Your task to perform on an android device: open app "PlayWell" (install if not already installed) and enter user name: "metric@gmail.com" and password: "bumblebee" Image 0: 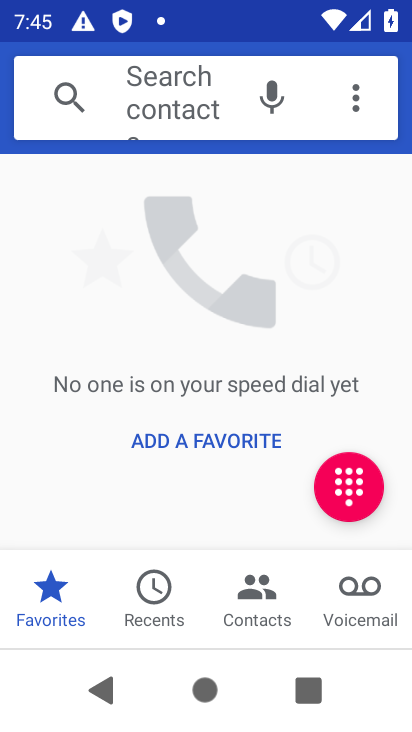
Step 0: press home button
Your task to perform on an android device: open app "PlayWell" (install if not already installed) and enter user name: "metric@gmail.com" and password: "bumblebee" Image 1: 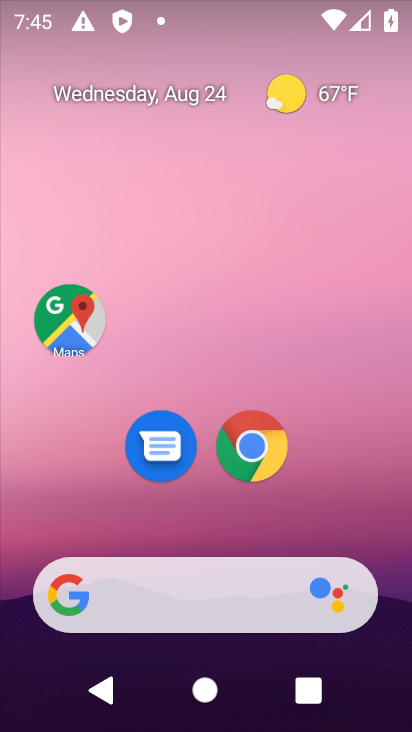
Step 1: drag from (200, 517) to (120, 48)
Your task to perform on an android device: open app "PlayWell" (install if not already installed) and enter user name: "metric@gmail.com" and password: "bumblebee" Image 2: 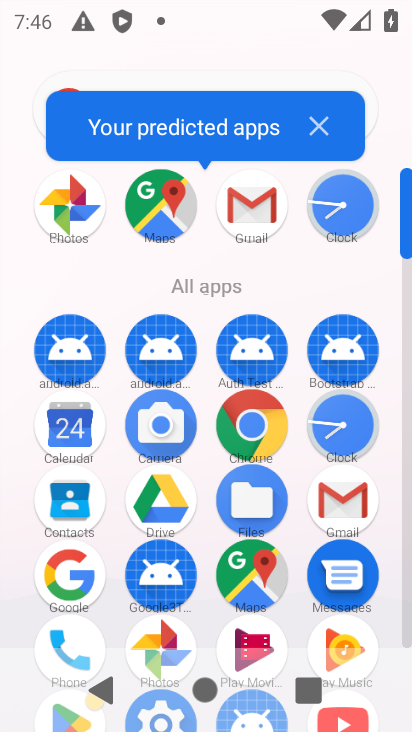
Step 2: drag from (200, 529) to (257, 4)
Your task to perform on an android device: open app "PlayWell" (install if not already installed) and enter user name: "metric@gmail.com" and password: "bumblebee" Image 3: 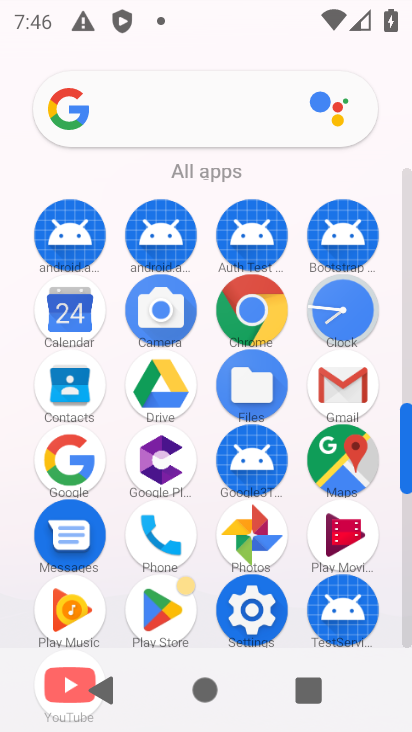
Step 3: click (161, 604)
Your task to perform on an android device: open app "PlayWell" (install if not already installed) and enter user name: "metric@gmail.com" and password: "bumblebee" Image 4: 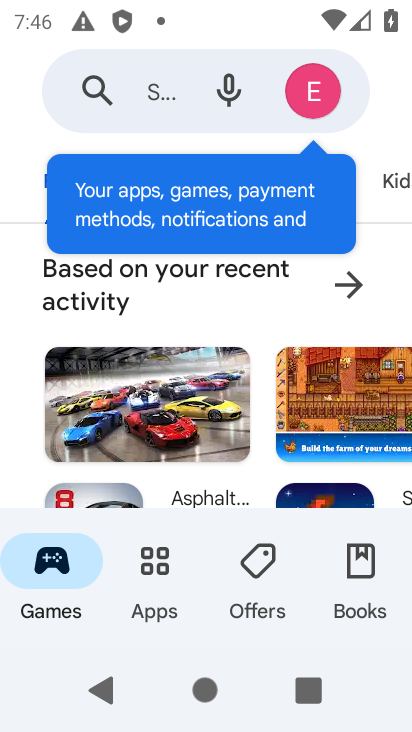
Step 4: click (153, 79)
Your task to perform on an android device: open app "PlayWell" (install if not already installed) and enter user name: "metric@gmail.com" and password: "bumblebee" Image 5: 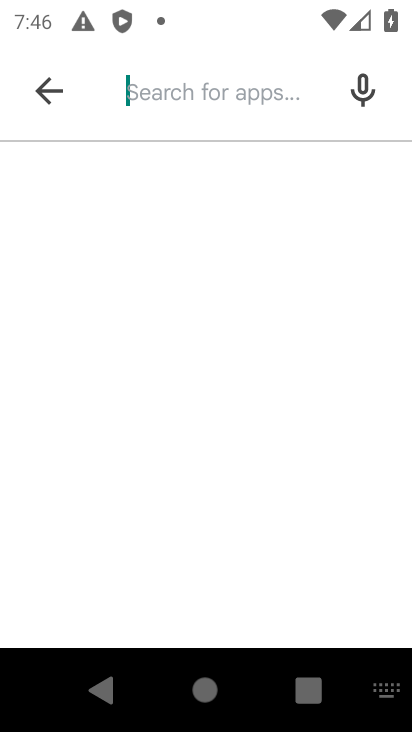
Step 5: type "PlayWell"
Your task to perform on an android device: open app "PlayWell" (install if not already installed) and enter user name: "metric@gmail.com" and password: "bumblebee" Image 6: 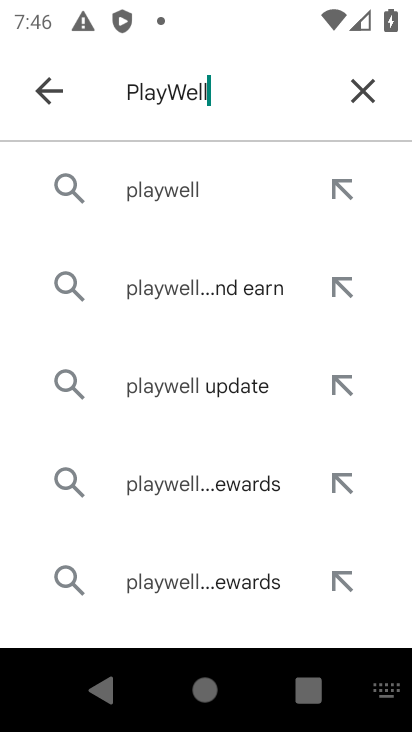
Step 6: click (134, 180)
Your task to perform on an android device: open app "PlayWell" (install if not already installed) and enter user name: "metric@gmail.com" and password: "bumblebee" Image 7: 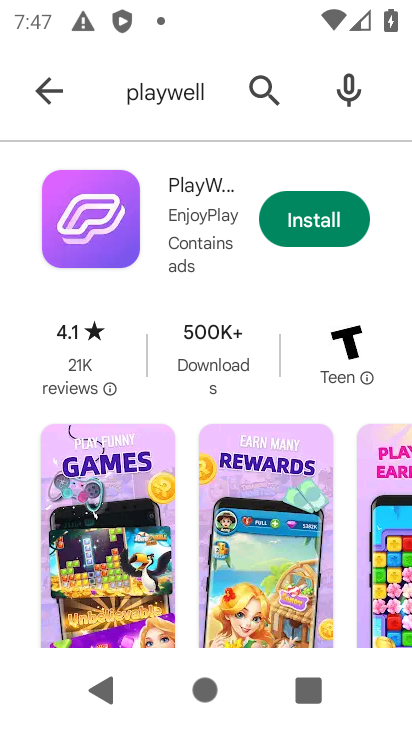
Step 7: click (276, 217)
Your task to perform on an android device: open app "PlayWell" (install if not already installed) and enter user name: "metric@gmail.com" and password: "bumblebee" Image 8: 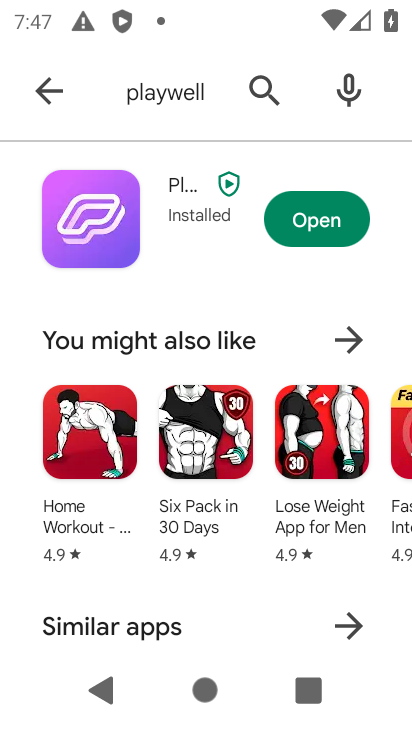
Step 8: click (316, 219)
Your task to perform on an android device: open app "PlayWell" (install if not already installed) and enter user name: "metric@gmail.com" and password: "bumblebee" Image 9: 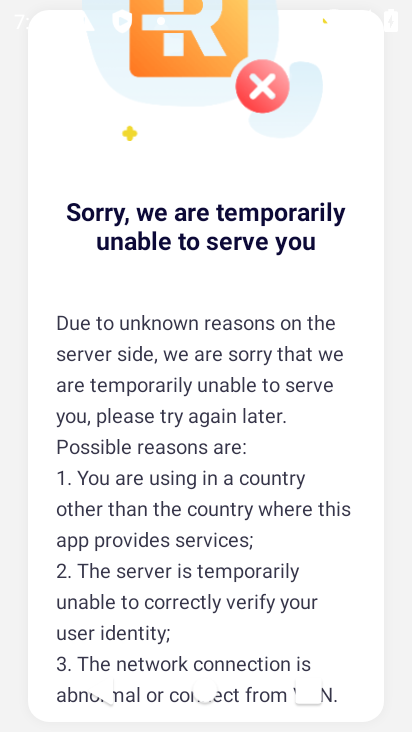
Step 9: drag from (236, 613) to (250, 163)
Your task to perform on an android device: open app "PlayWell" (install if not already installed) and enter user name: "metric@gmail.com" and password: "bumblebee" Image 10: 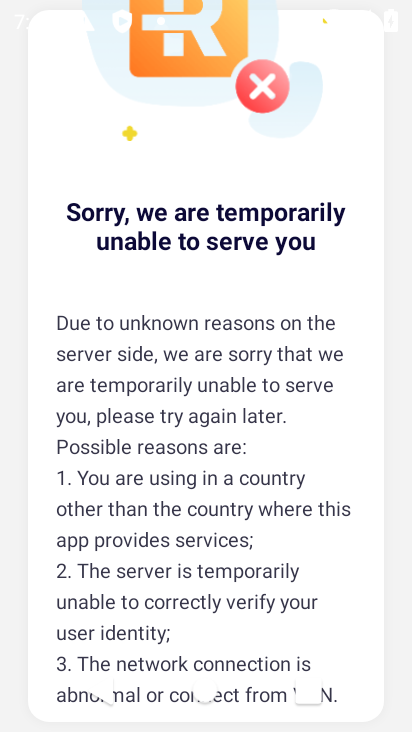
Step 10: drag from (170, 545) to (181, 229)
Your task to perform on an android device: open app "PlayWell" (install if not already installed) and enter user name: "metric@gmail.com" and password: "bumblebee" Image 11: 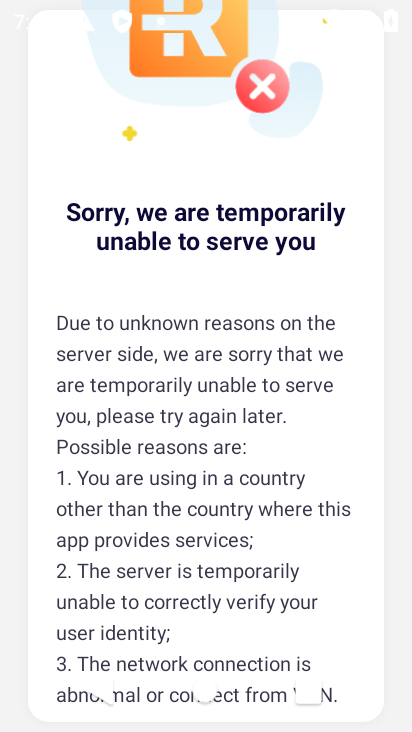
Step 11: click (263, 80)
Your task to perform on an android device: open app "PlayWell" (install if not already installed) and enter user name: "metric@gmail.com" and password: "bumblebee" Image 12: 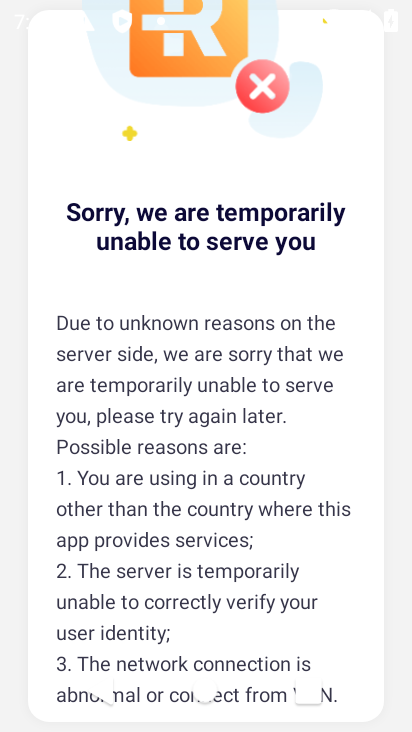
Step 12: task complete